Your task to perform on an android device: turn off notifications settings in the gmail app Image 0: 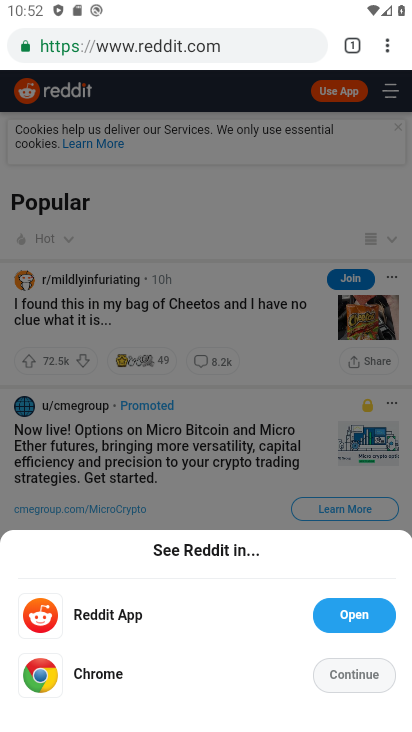
Step 0: press home button
Your task to perform on an android device: turn off notifications settings in the gmail app Image 1: 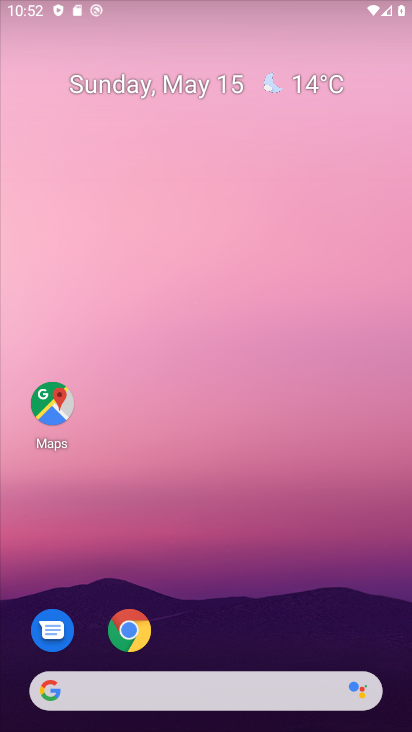
Step 1: drag from (93, 459) to (304, 155)
Your task to perform on an android device: turn off notifications settings in the gmail app Image 2: 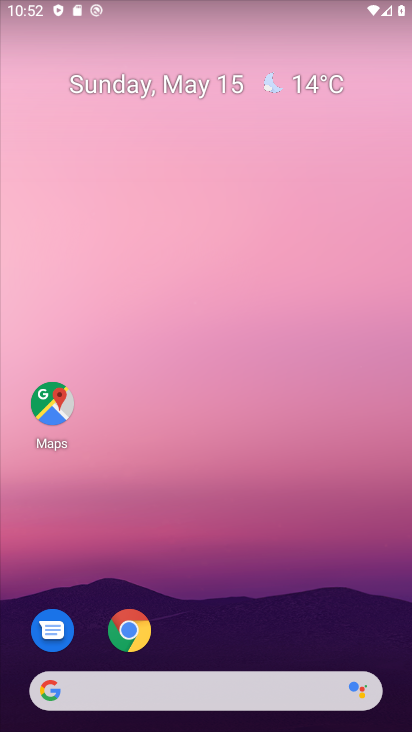
Step 2: drag from (63, 529) to (256, 169)
Your task to perform on an android device: turn off notifications settings in the gmail app Image 3: 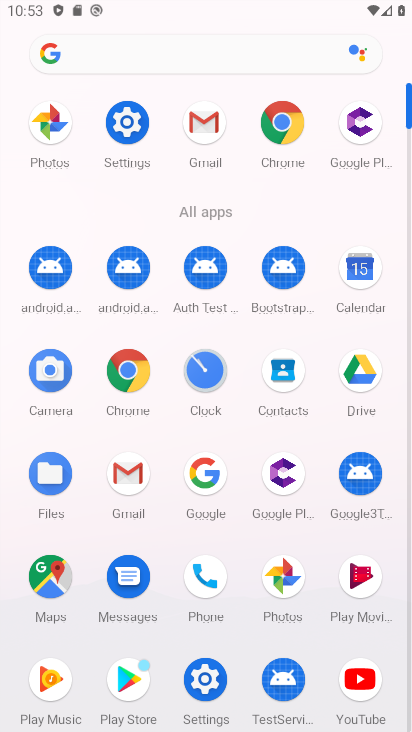
Step 3: click (121, 133)
Your task to perform on an android device: turn off notifications settings in the gmail app Image 4: 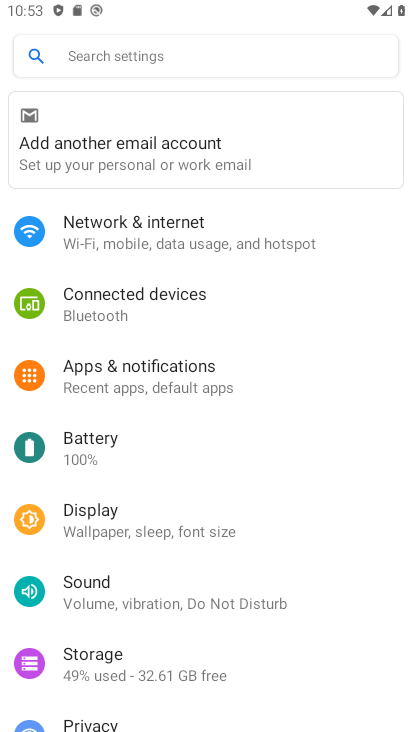
Step 4: click (174, 378)
Your task to perform on an android device: turn off notifications settings in the gmail app Image 5: 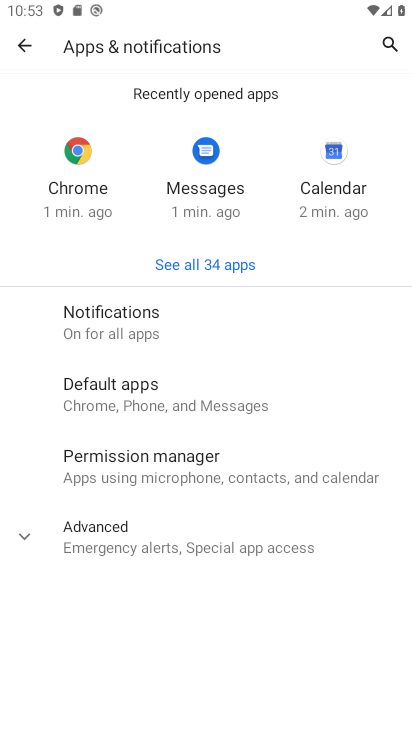
Step 5: click (187, 325)
Your task to perform on an android device: turn off notifications settings in the gmail app Image 6: 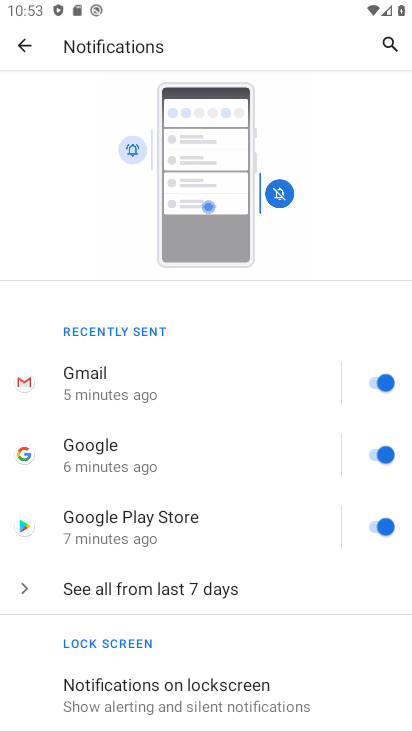
Step 6: task complete